Your task to perform on an android device: toggle improve location accuracy Image 0: 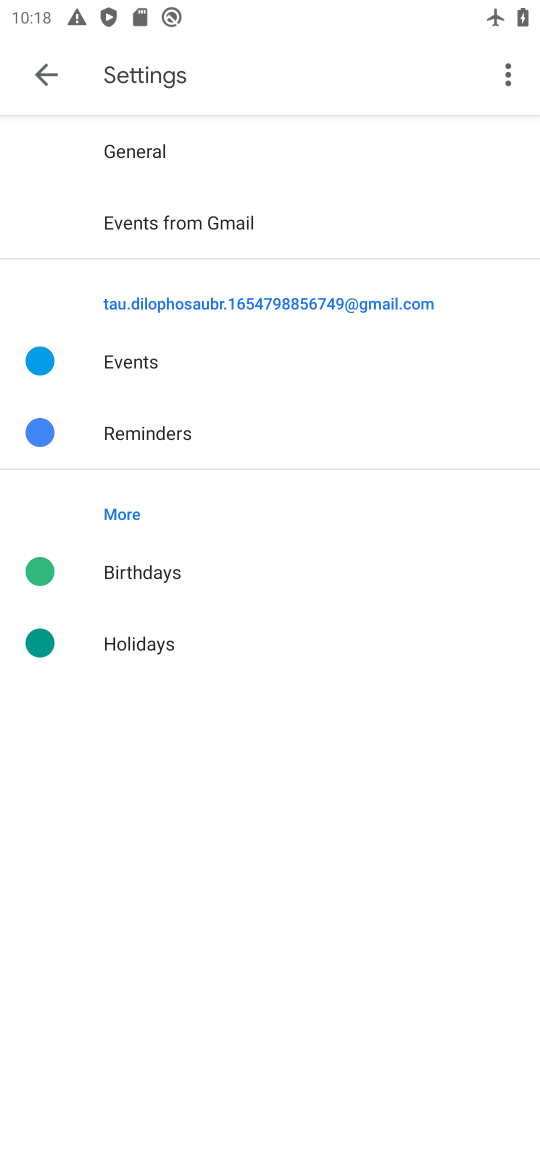
Step 0: press home button
Your task to perform on an android device: toggle improve location accuracy Image 1: 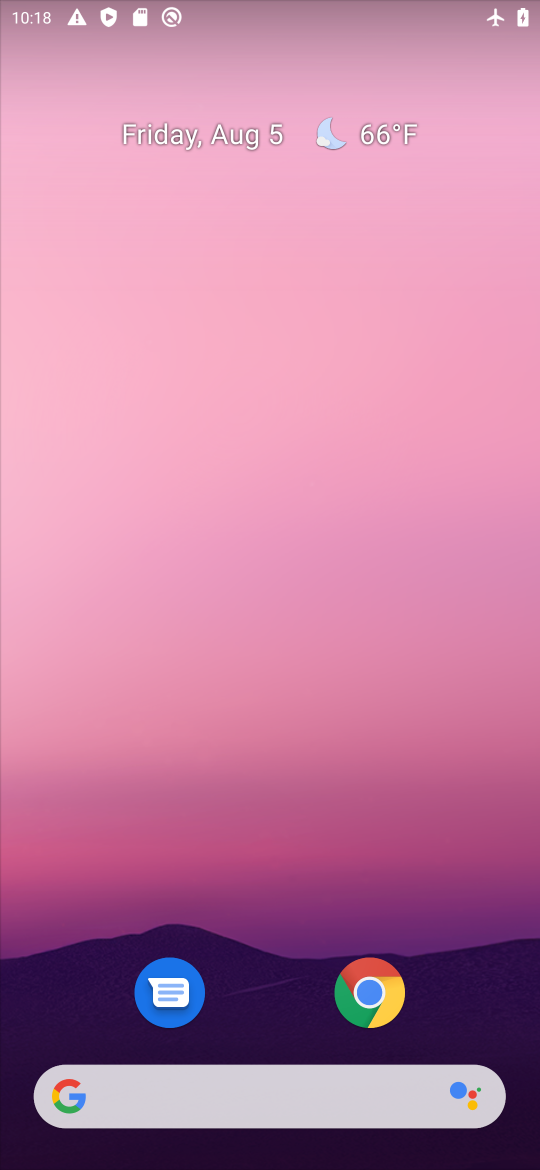
Step 1: drag from (259, 1062) to (246, 361)
Your task to perform on an android device: toggle improve location accuracy Image 2: 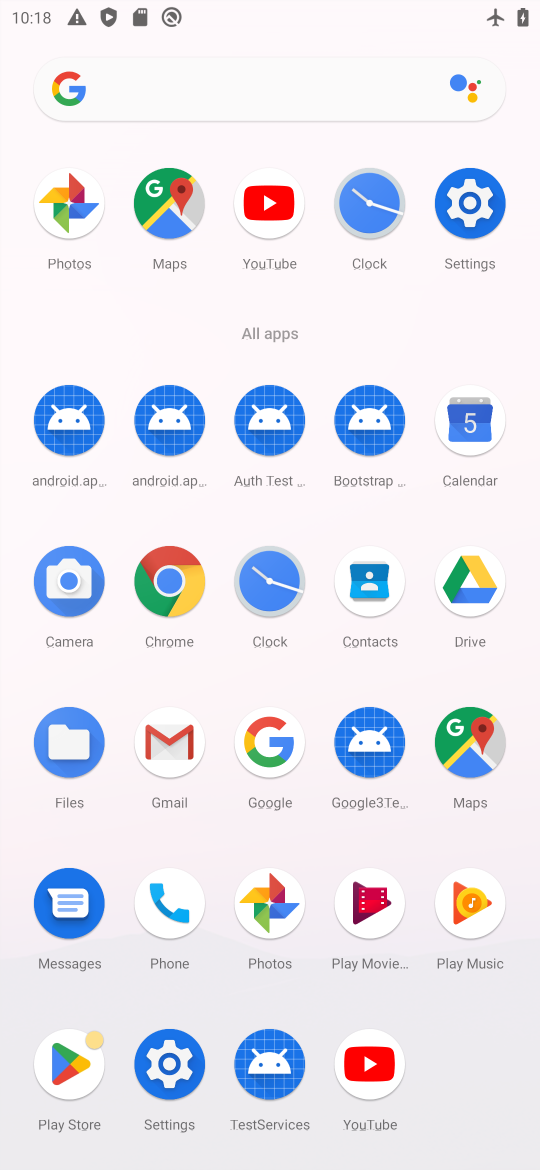
Step 2: click (461, 230)
Your task to perform on an android device: toggle improve location accuracy Image 3: 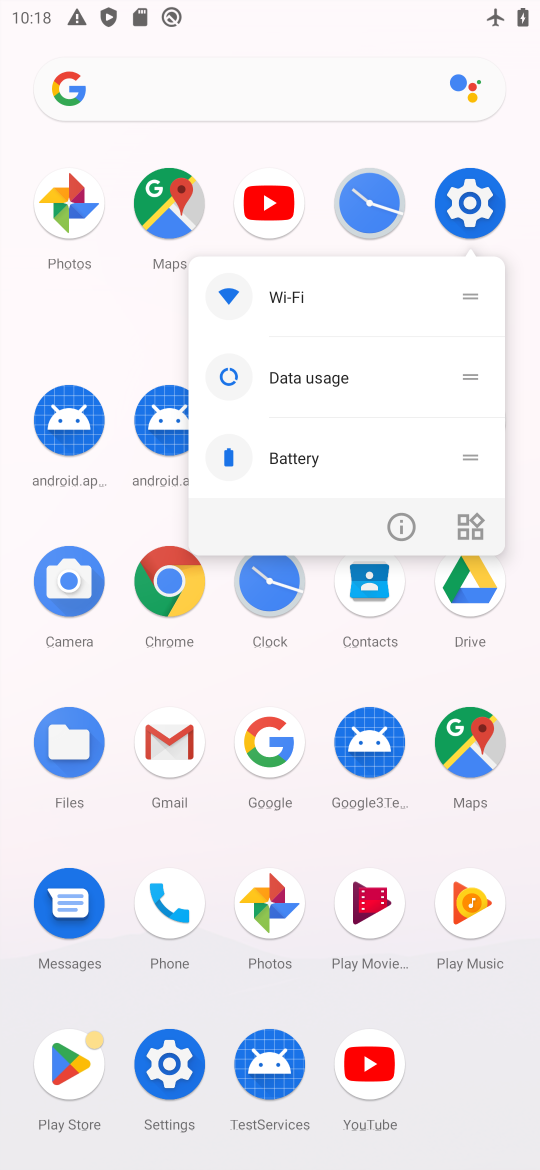
Step 3: click (486, 199)
Your task to perform on an android device: toggle improve location accuracy Image 4: 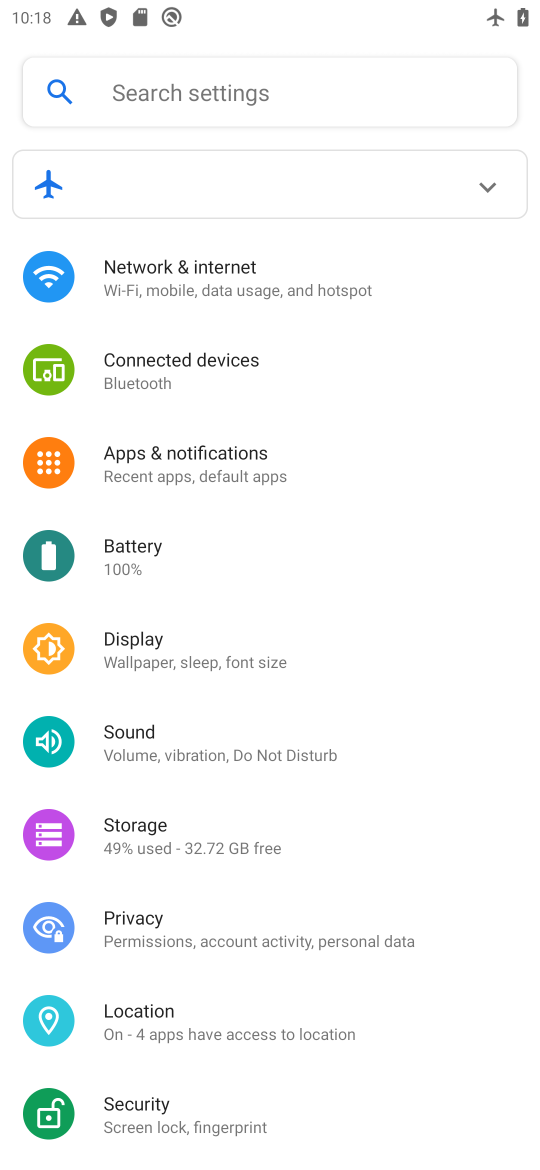
Step 4: drag from (248, 915) to (264, 641)
Your task to perform on an android device: toggle improve location accuracy Image 5: 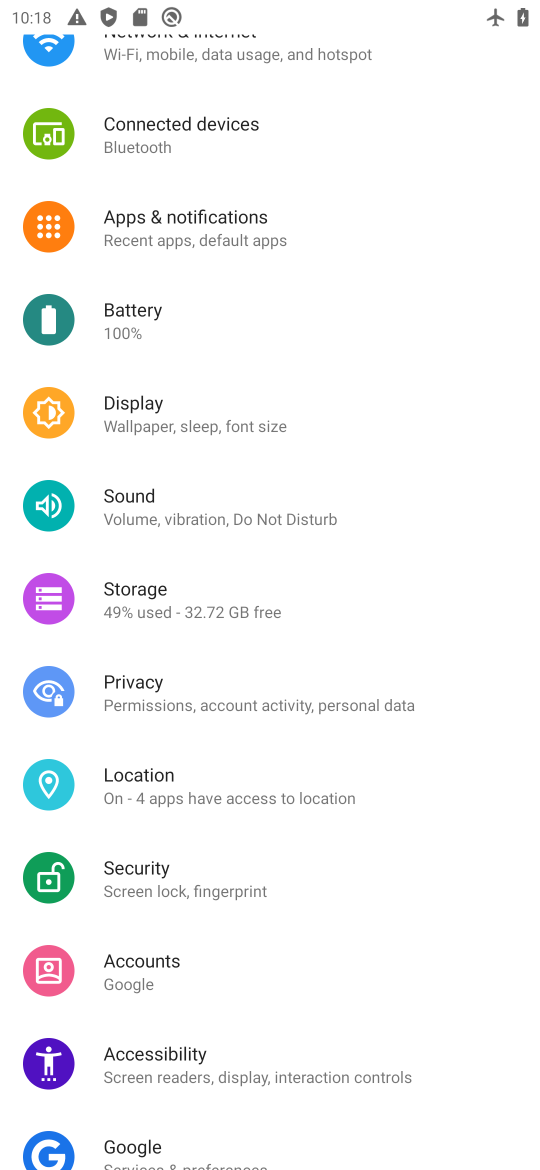
Step 5: click (206, 788)
Your task to perform on an android device: toggle improve location accuracy Image 6: 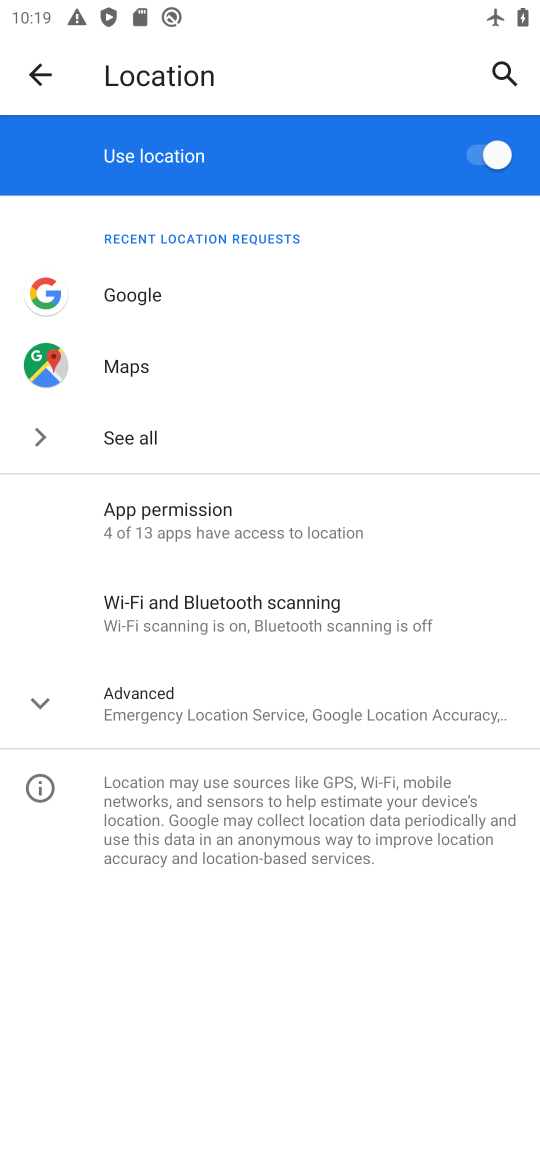
Step 6: click (318, 713)
Your task to perform on an android device: toggle improve location accuracy Image 7: 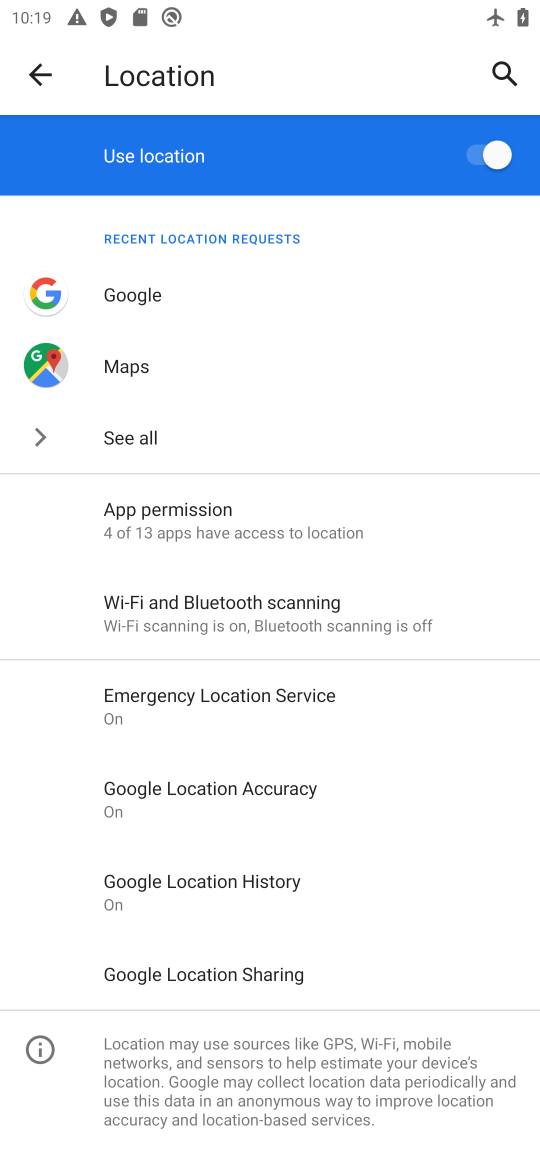
Step 7: click (241, 797)
Your task to perform on an android device: toggle improve location accuracy Image 8: 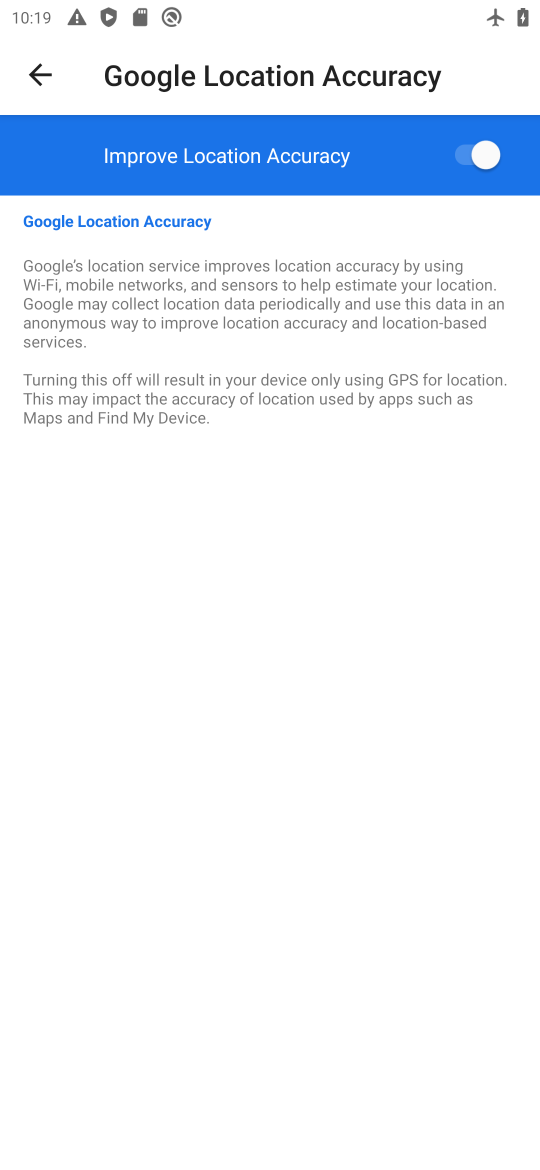
Step 8: click (465, 174)
Your task to perform on an android device: toggle improve location accuracy Image 9: 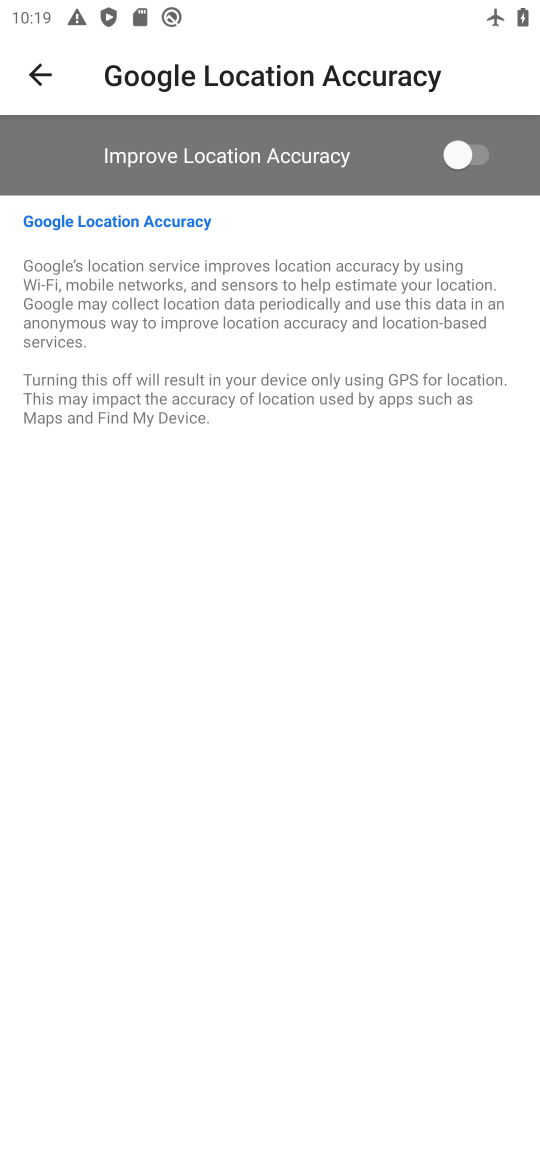
Step 9: task complete